Your task to perform on an android device: change the clock display to show seconds Image 0: 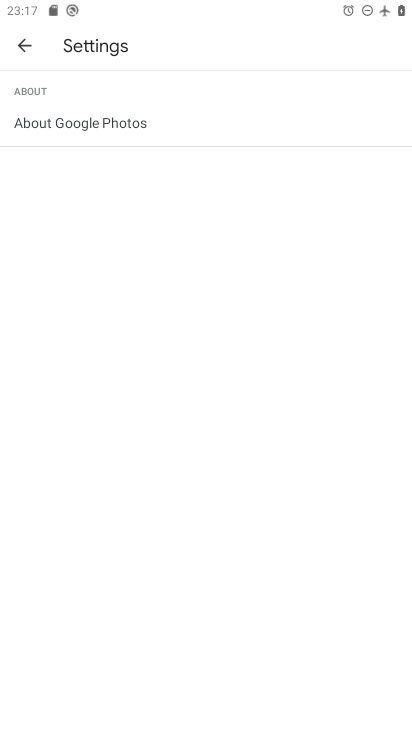
Step 0: press home button
Your task to perform on an android device: change the clock display to show seconds Image 1: 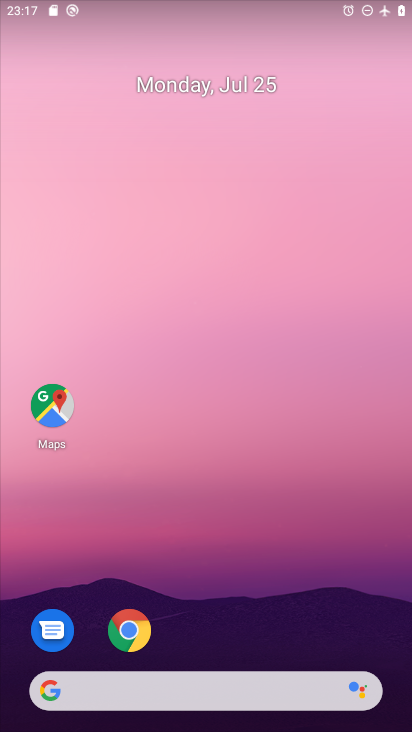
Step 1: drag from (295, 593) to (280, 0)
Your task to perform on an android device: change the clock display to show seconds Image 2: 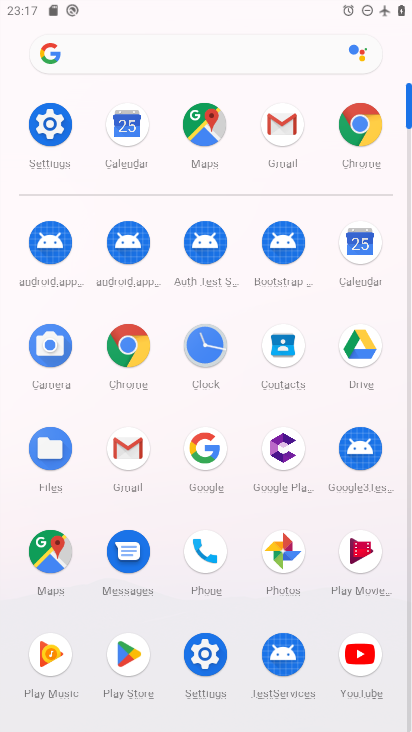
Step 2: click (198, 346)
Your task to perform on an android device: change the clock display to show seconds Image 3: 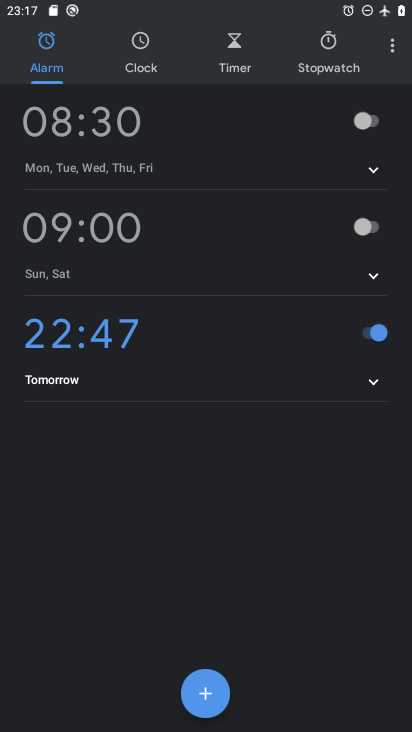
Step 3: click (396, 46)
Your task to perform on an android device: change the clock display to show seconds Image 4: 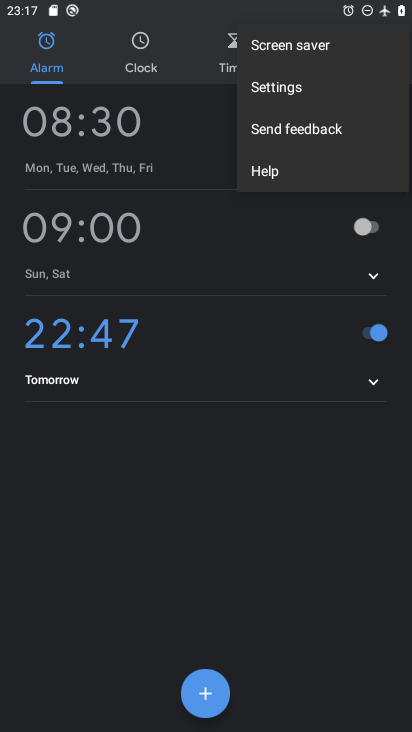
Step 4: click (276, 100)
Your task to perform on an android device: change the clock display to show seconds Image 5: 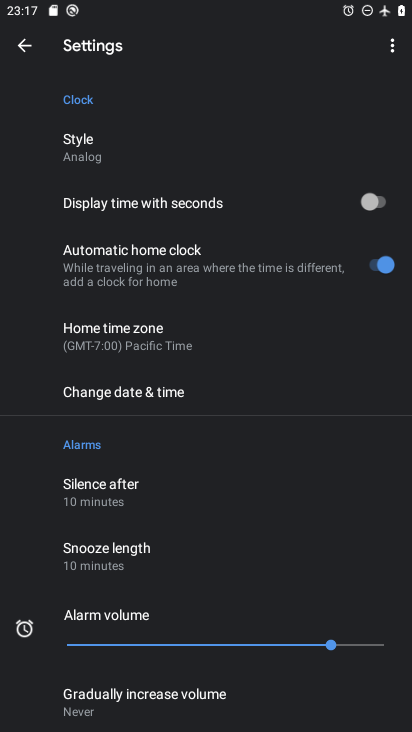
Step 5: click (370, 214)
Your task to perform on an android device: change the clock display to show seconds Image 6: 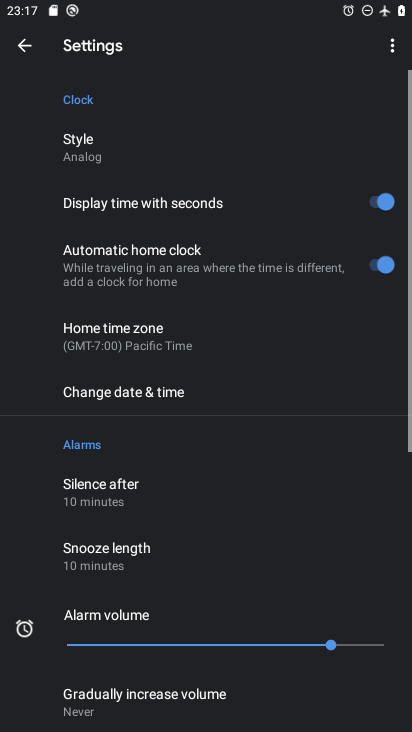
Step 6: task complete